Your task to perform on an android device: search for starred emails in the gmail app Image 0: 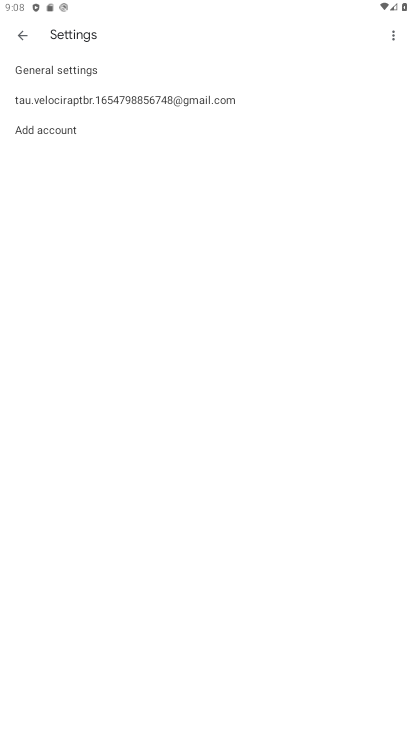
Step 0: press home button
Your task to perform on an android device: search for starred emails in the gmail app Image 1: 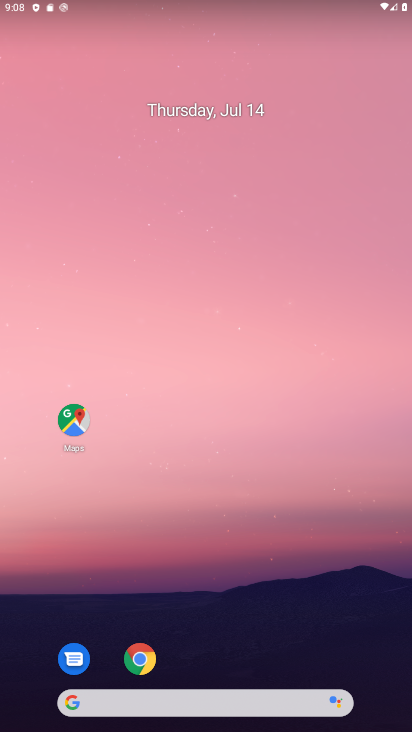
Step 1: drag from (278, 675) to (341, 161)
Your task to perform on an android device: search for starred emails in the gmail app Image 2: 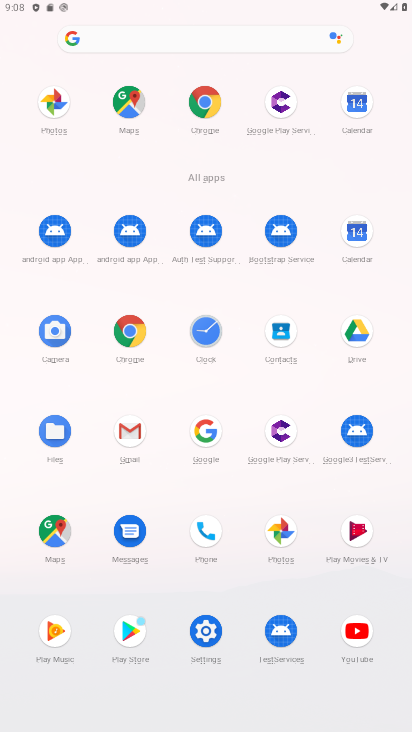
Step 2: click (124, 441)
Your task to perform on an android device: search for starred emails in the gmail app Image 3: 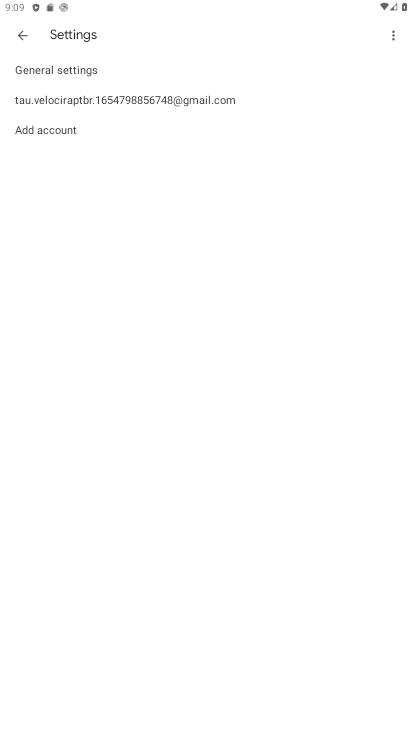
Step 3: press back button
Your task to perform on an android device: search for starred emails in the gmail app Image 4: 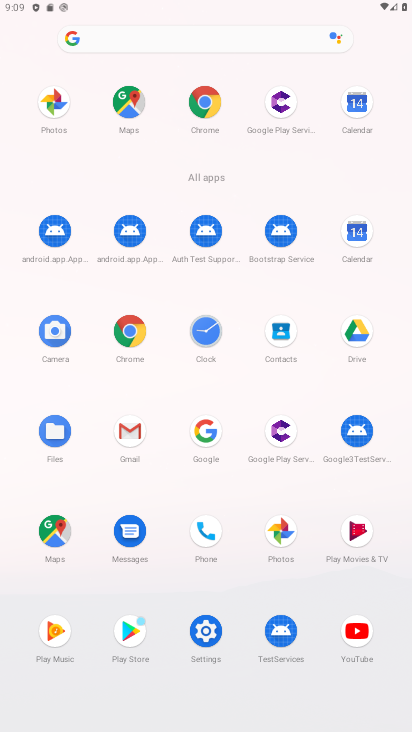
Step 4: click (138, 442)
Your task to perform on an android device: search for starred emails in the gmail app Image 5: 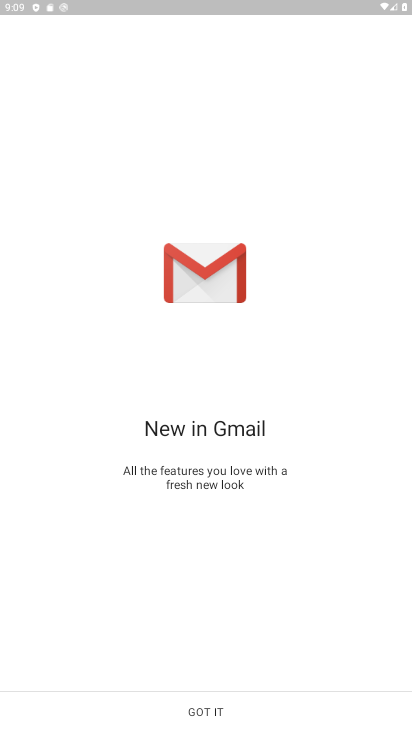
Step 5: click (190, 689)
Your task to perform on an android device: search for starred emails in the gmail app Image 6: 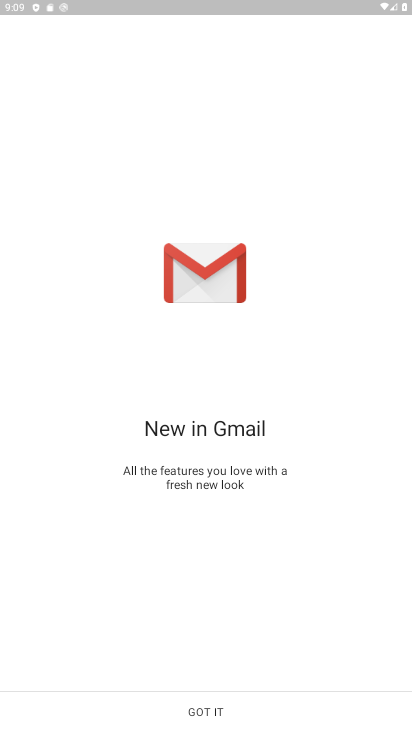
Step 6: click (180, 702)
Your task to perform on an android device: search for starred emails in the gmail app Image 7: 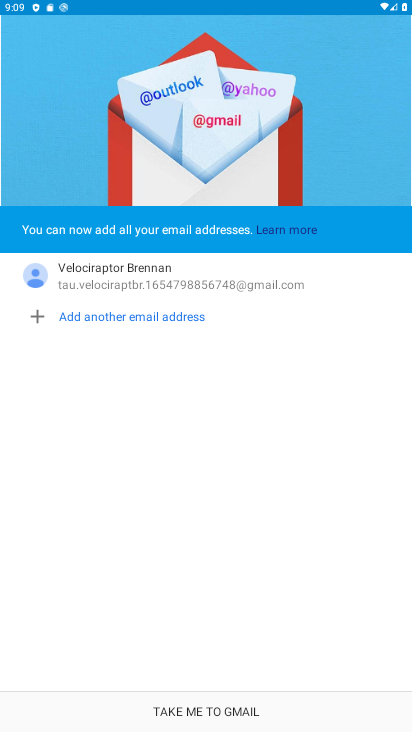
Step 7: click (180, 702)
Your task to perform on an android device: search for starred emails in the gmail app Image 8: 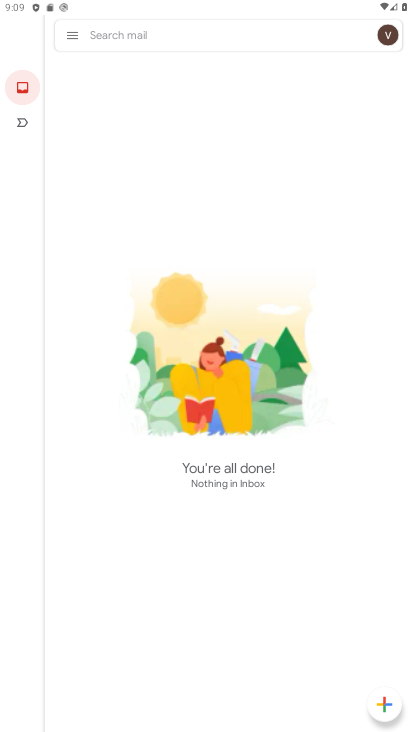
Step 8: click (66, 35)
Your task to perform on an android device: search for starred emails in the gmail app Image 9: 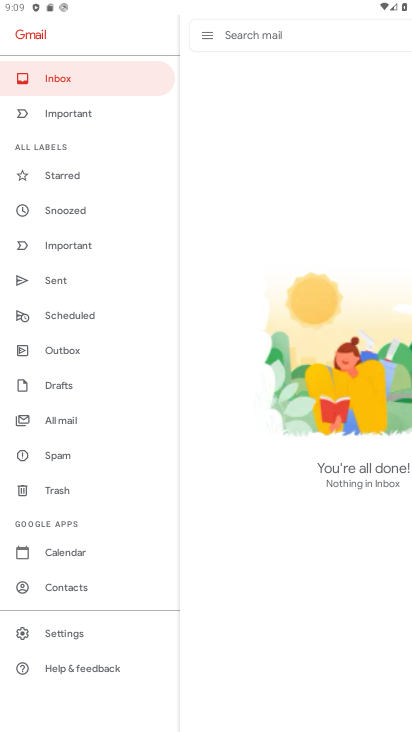
Step 9: click (83, 183)
Your task to perform on an android device: search for starred emails in the gmail app Image 10: 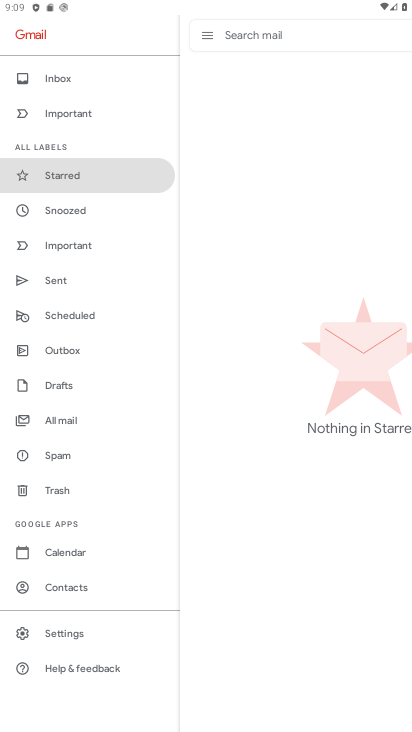
Step 10: task complete